Your task to perform on an android device: Open Google Maps and go to "Timeline" Image 0: 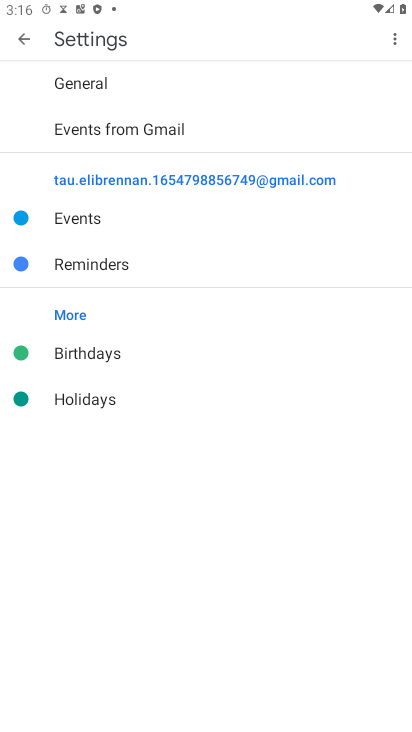
Step 0: press home button
Your task to perform on an android device: Open Google Maps and go to "Timeline" Image 1: 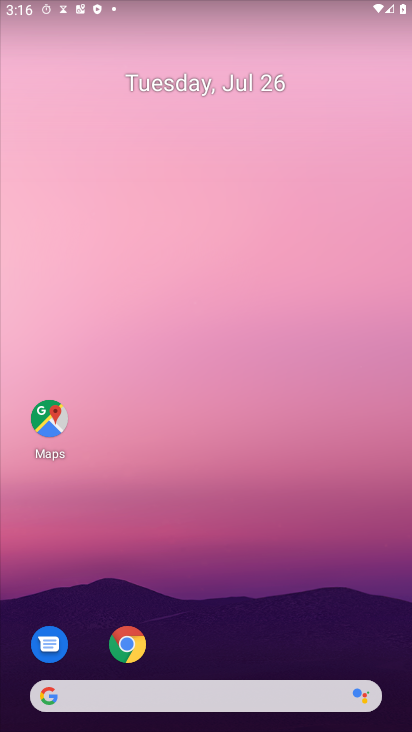
Step 1: drag from (271, 633) to (293, 128)
Your task to perform on an android device: Open Google Maps and go to "Timeline" Image 2: 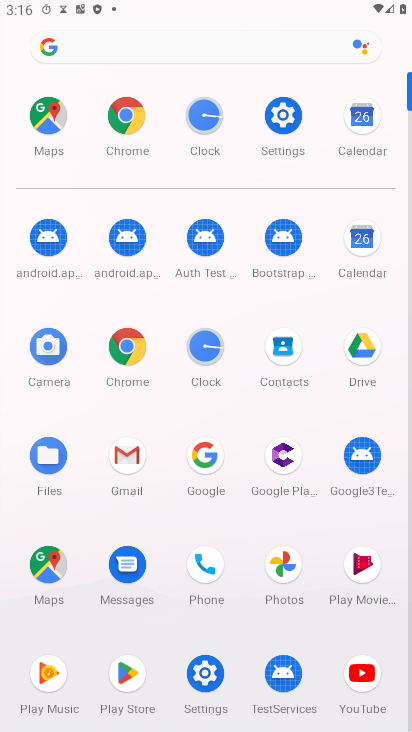
Step 2: drag from (235, 635) to (257, 340)
Your task to perform on an android device: Open Google Maps and go to "Timeline" Image 3: 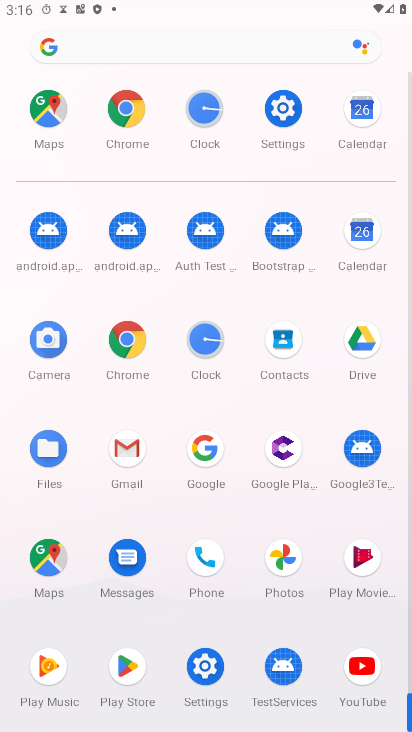
Step 3: click (48, 571)
Your task to perform on an android device: Open Google Maps and go to "Timeline" Image 4: 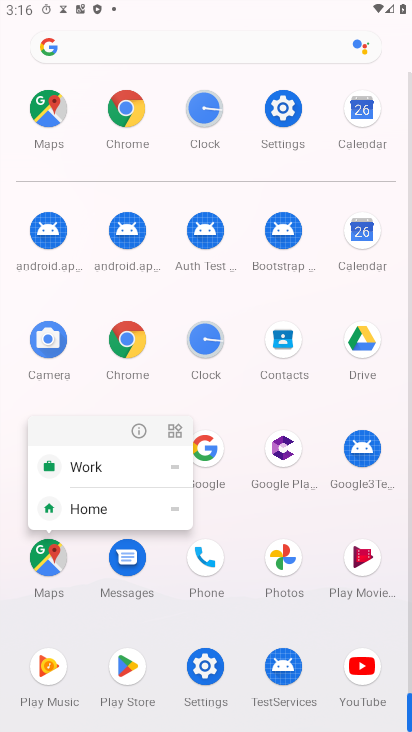
Step 4: click (51, 571)
Your task to perform on an android device: Open Google Maps and go to "Timeline" Image 5: 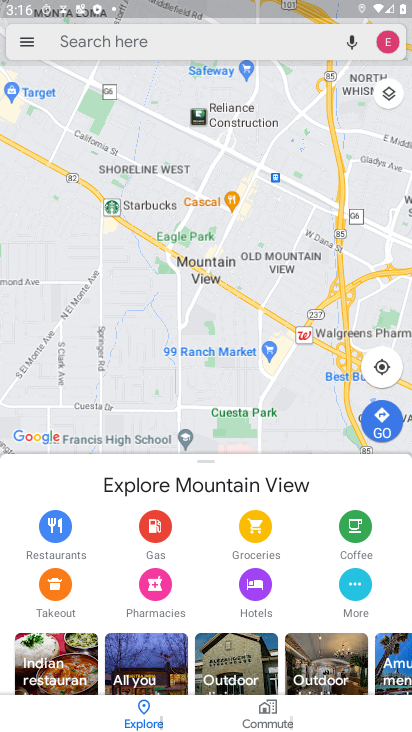
Step 5: click (29, 46)
Your task to perform on an android device: Open Google Maps and go to "Timeline" Image 6: 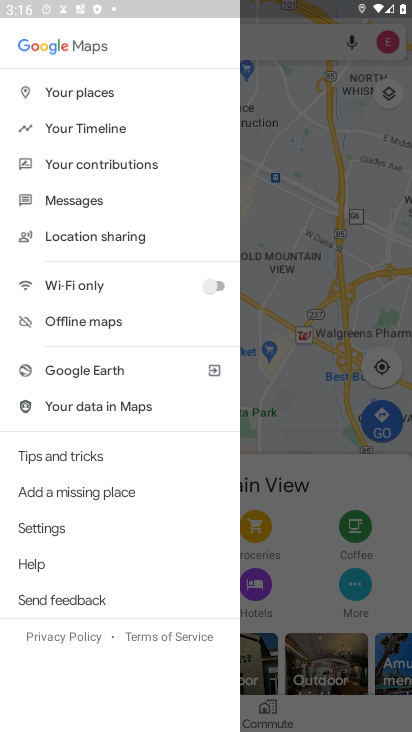
Step 6: click (106, 122)
Your task to perform on an android device: Open Google Maps and go to "Timeline" Image 7: 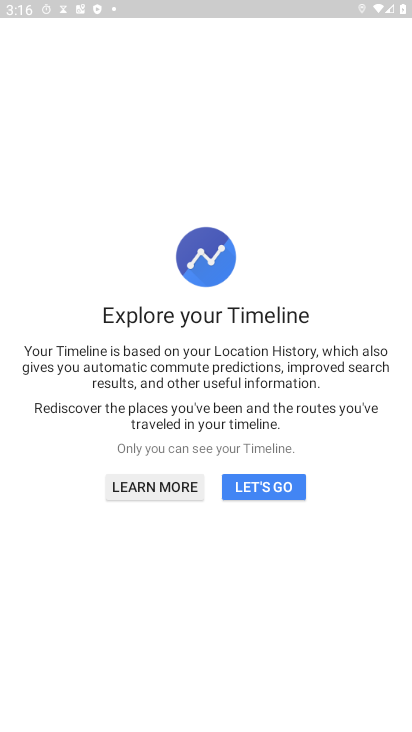
Step 7: click (264, 483)
Your task to perform on an android device: Open Google Maps and go to "Timeline" Image 8: 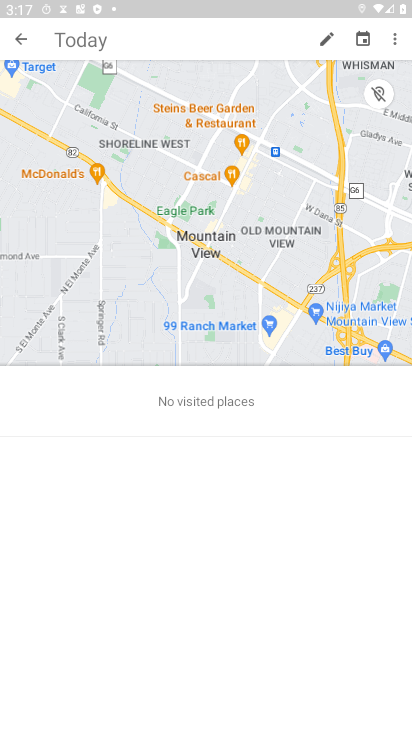
Step 8: task complete